Your task to perform on an android device: Go to Android settings Image 0: 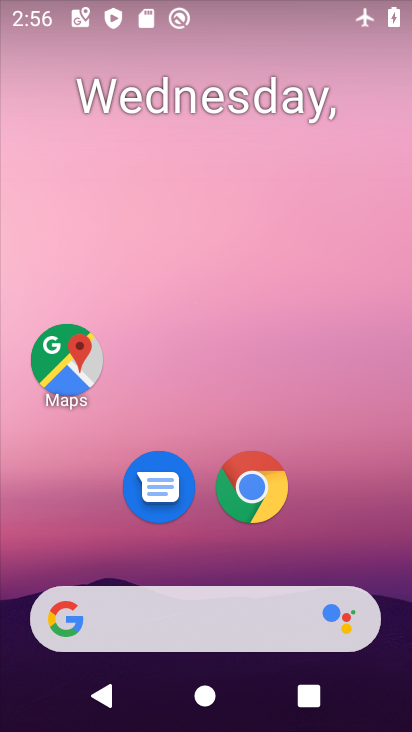
Step 0: drag from (332, 481) to (314, 41)
Your task to perform on an android device: Go to Android settings Image 1: 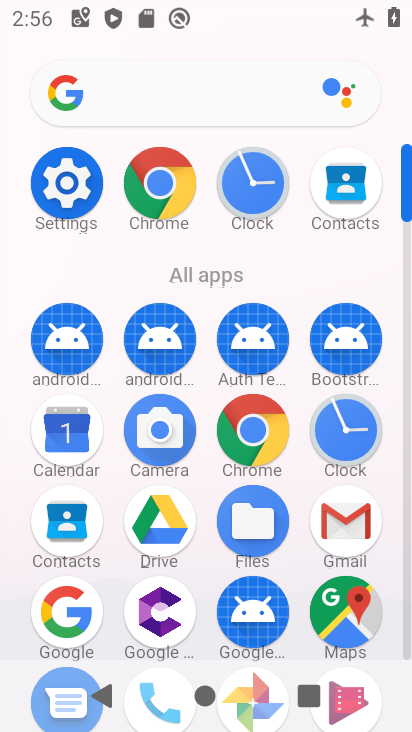
Step 1: click (86, 187)
Your task to perform on an android device: Go to Android settings Image 2: 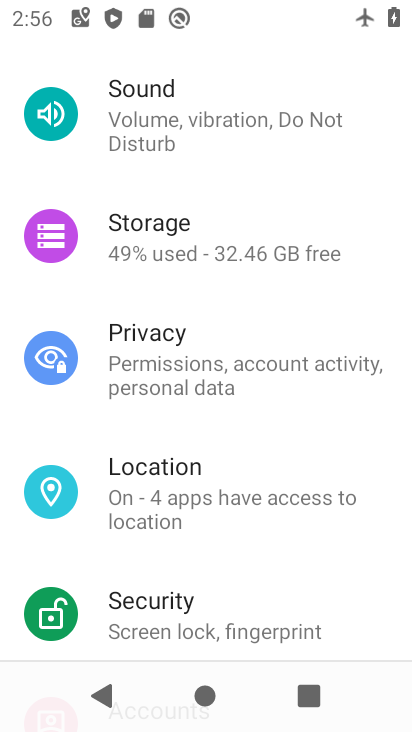
Step 2: drag from (276, 542) to (268, 0)
Your task to perform on an android device: Go to Android settings Image 3: 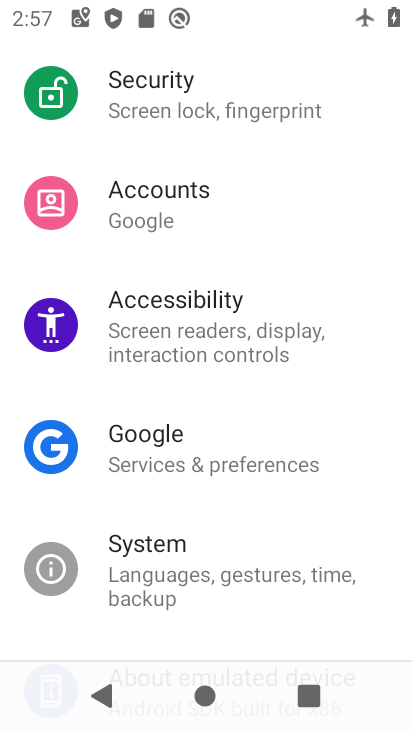
Step 3: drag from (217, 511) to (254, 226)
Your task to perform on an android device: Go to Android settings Image 4: 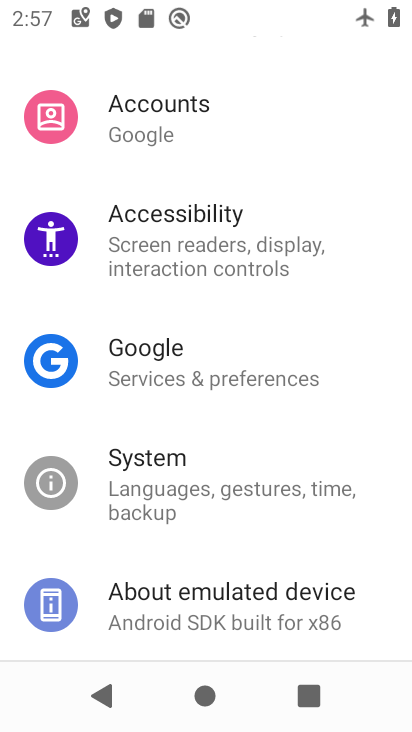
Step 4: click (277, 598)
Your task to perform on an android device: Go to Android settings Image 5: 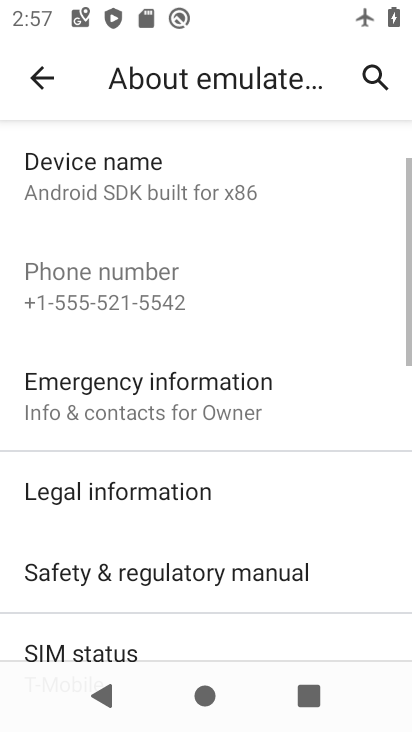
Step 5: task complete